Your task to perform on an android device: move an email to a new category in the gmail app Image 0: 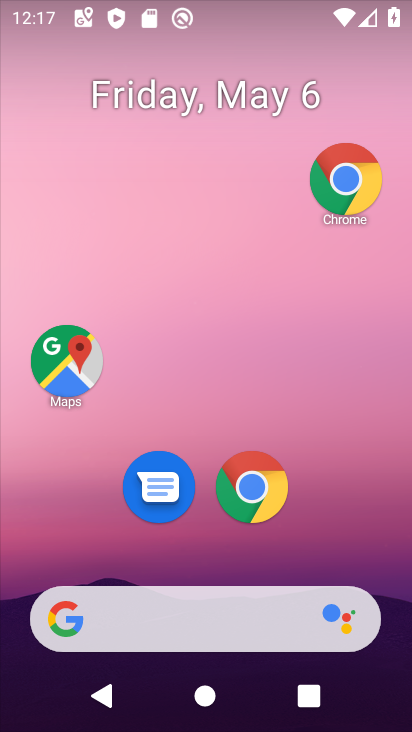
Step 0: drag from (331, 556) to (279, 215)
Your task to perform on an android device: move an email to a new category in the gmail app Image 1: 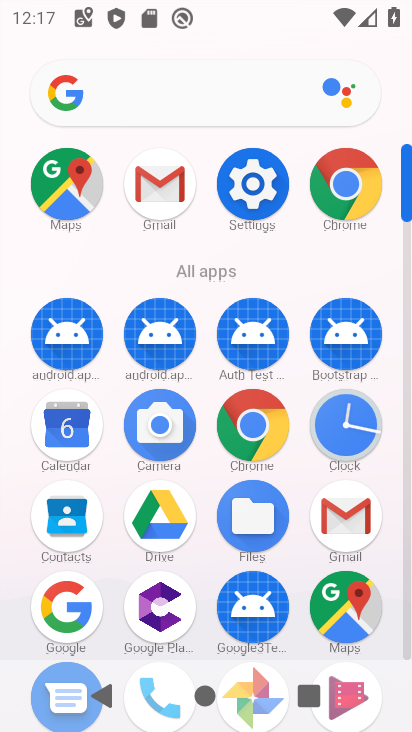
Step 1: click (324, 517)
Your task to perform on an android device: move an email to a new category in the gmail app Image 2: 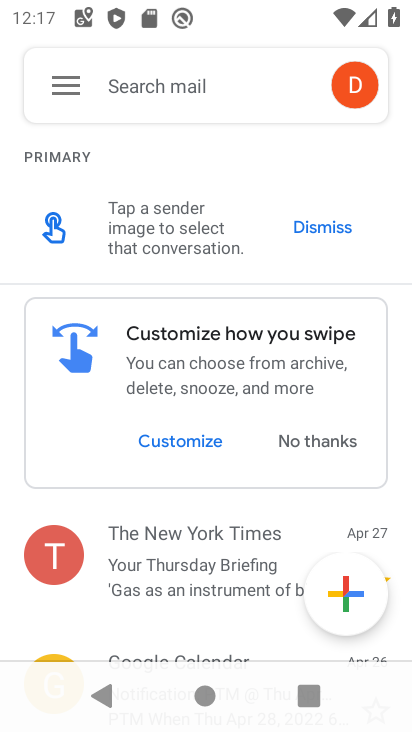
Step 2: click (78, 80)
Your task to perform on an android device: move an email to a new category in the gmail app Image 3: 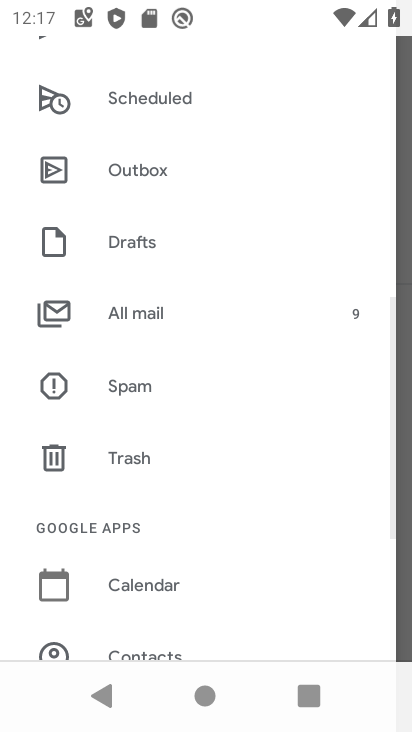
Step 3: drag from (111, 550) to (119, 354)
Your task to perform on an android device: move an email to a new category in the gmail app Image 4: 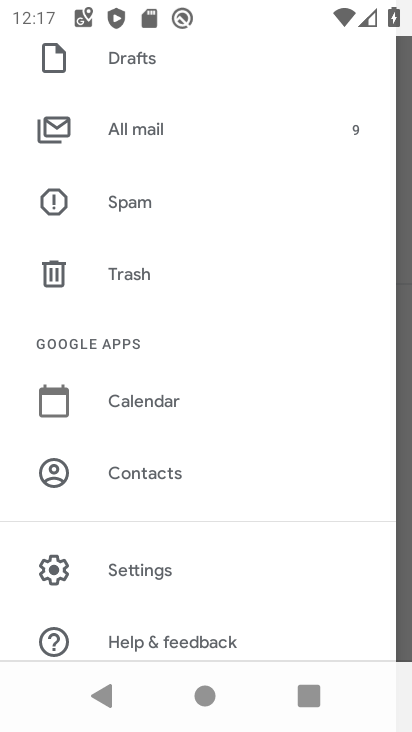
Step 4: drag from (111, 226) to (112, 451)
Your task to perform on an android device: move an email to a new category in the gmail app Image 5: 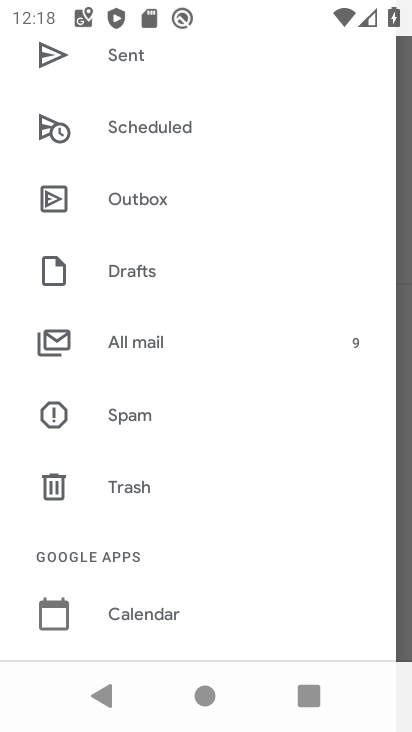
Step 5: drag from (157, 156) to (154, 312)
Your task to perform on an android device: move an email to a new category in the gmail app Image 6: 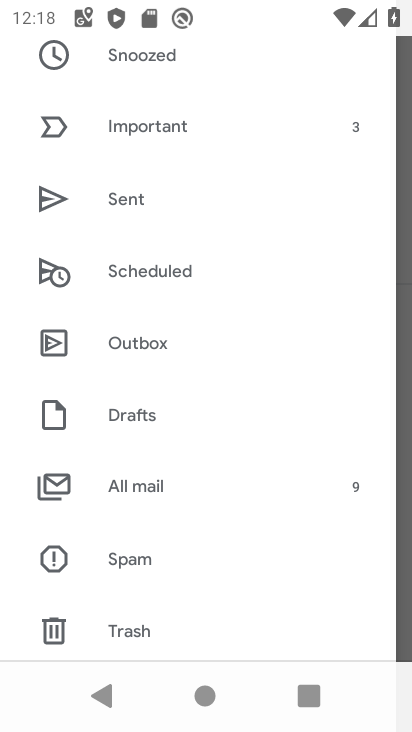
Step 6: drag from (159, 137) to (162, 271)
Your task to perform on an android device: move an email to a new category in the gmail app Image 7: 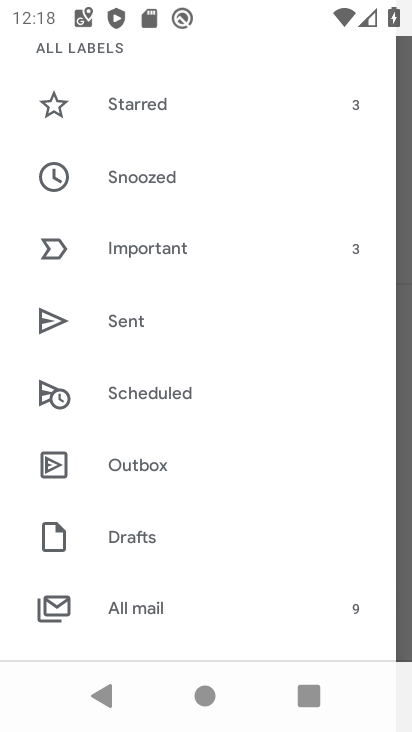
Step 7: drag from (181, 116) to (182, 258)
Your task to perform on an android device: move an email to a new category in the gmail app Image 8: 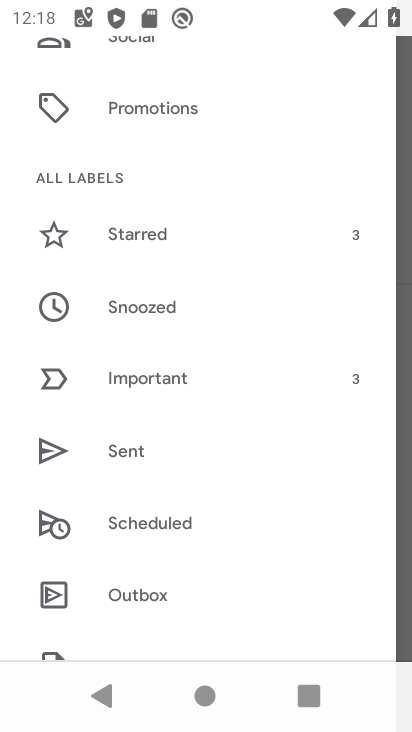
Step 8: drag from (199, 171) to (226, 424)
Your task to perform on an android device: move an email to a new category in the gmail app Image 9: 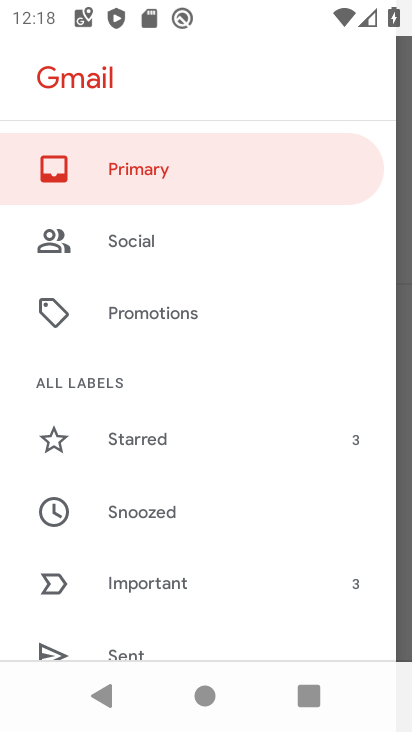
Step 9: click (195, 176)
Your task to perform on an android device: move an email to a new category in the gmail app Image 10: 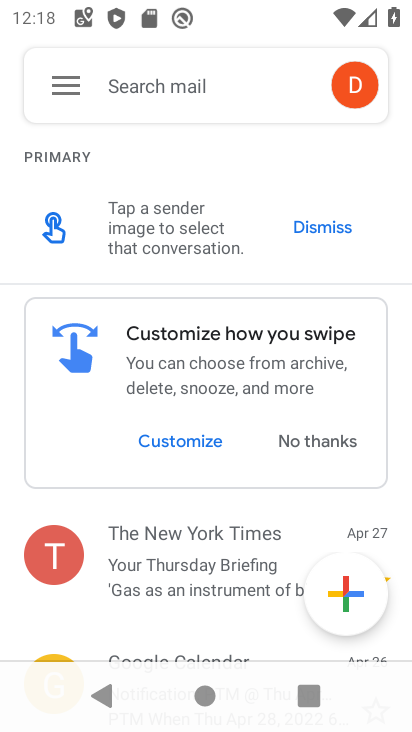
Step 10: click (197, 558)
Your task to perform on an android device: move an email to a new category in the gmail app Image 11: 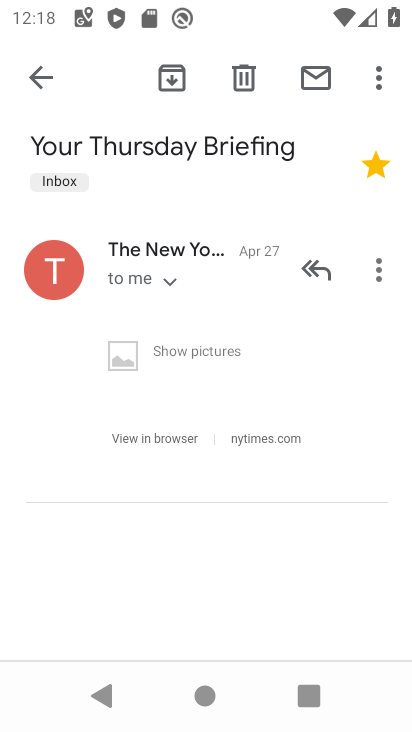
Step 11: click (375, 277)
Your task to perform on an android device: move an email to a new category in the gmail app Image 12: 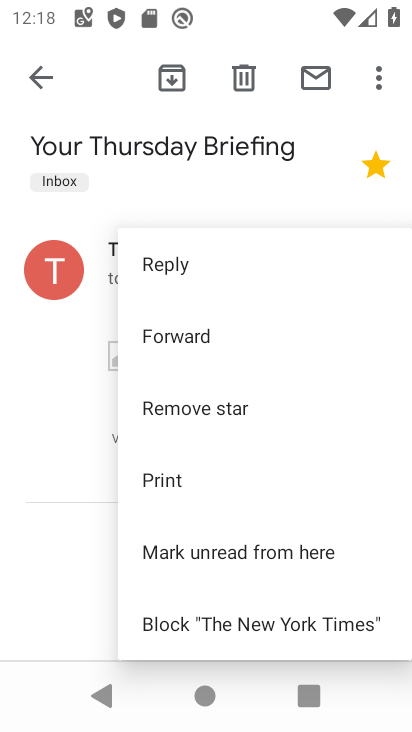
Step 12: click (103, 378)
Your task to perform on an android device: move an email to a new category in the gmail app Image 13: 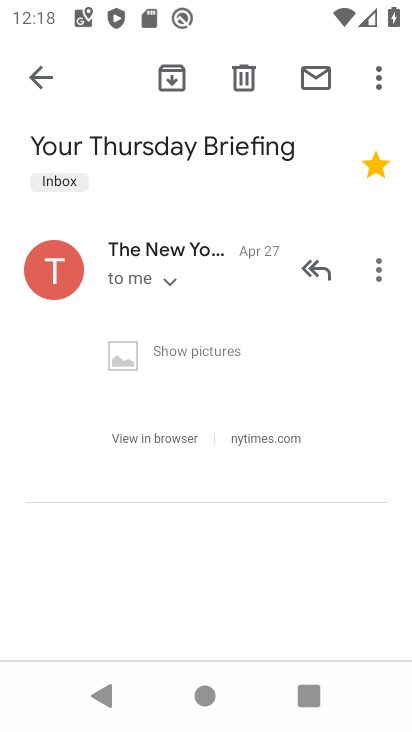
Step 13: click (374, 280)
Your task to perform on an android device: move an email to a new category in the gmail app Image 14: 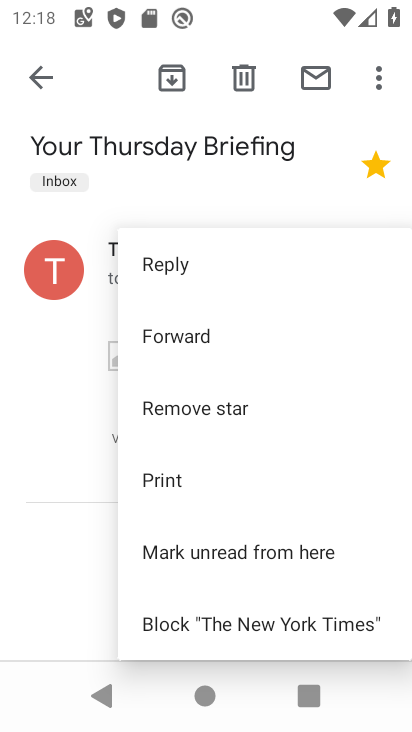
Step 14: click (383, 56)
Your task to perform on an android device: move an email to a new category in the gmail app Image 15: 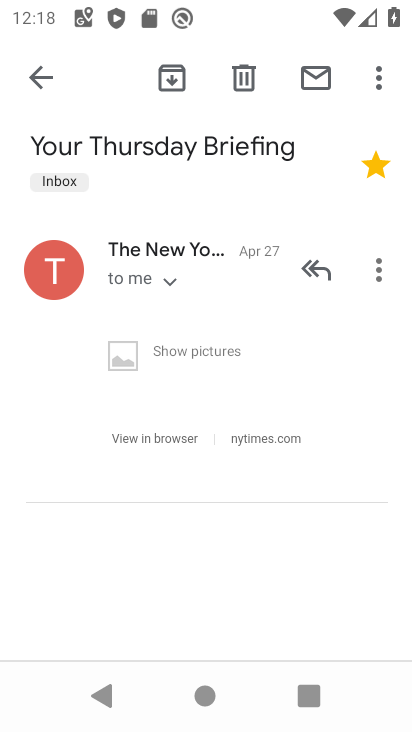
Step 15: click (383, 71)
Your task to perform on an android device: move an email to a new category in the gmail app Image 16: 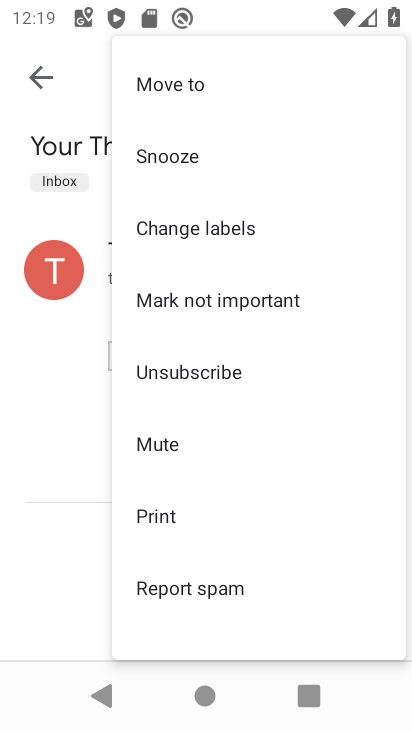
Step 16: click (223, 228)
Your task to perform on an android device: move an email to a new category in the gmail app Image 17: 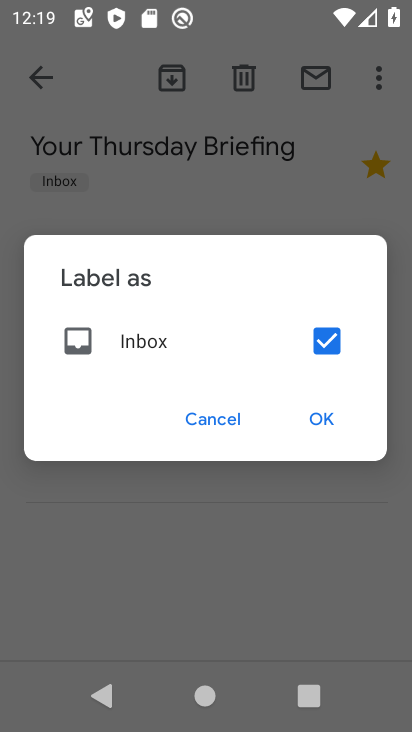
Step 17: click (305, 416)
Your task to perform on an android device: move an email to a new category in the gmail app Image 18: 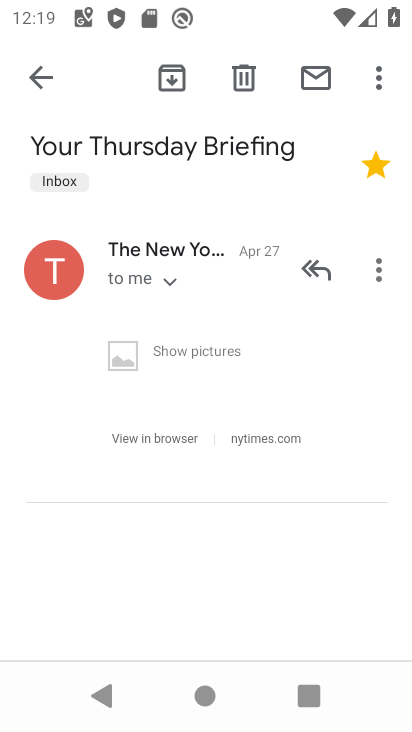
Step 18: task complete